Your task to perform on an android device: Go to Yahoo.com Image 0: 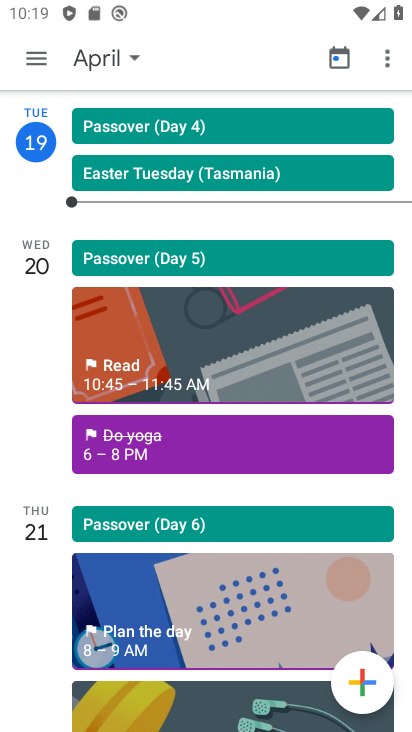
Step 0: press home button
Your task to perform on an android device: Go to Yahoo.com Image 1: 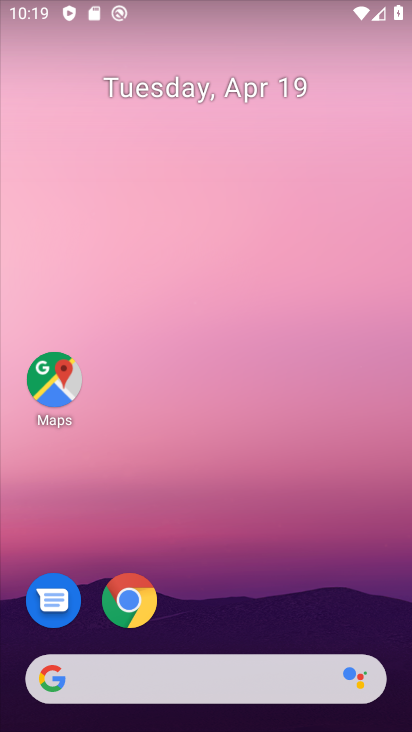
Step 1: click (144, 593)
Your task to perform on an android device: Go to Yahoo.com Image 2: 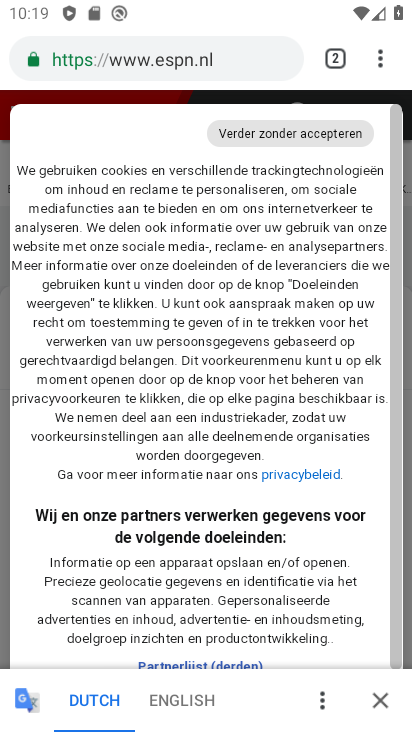
Step 2: click (141, 56)
Your task to perform on an android device: Go to Yahoo.com Image 3: 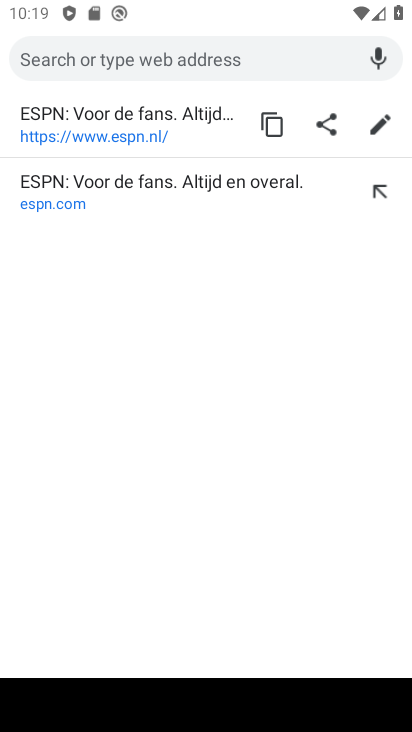
Step 3: type "yahoo.com"
Your task to perform on an android device: Go to Yahoo.com Image 4: 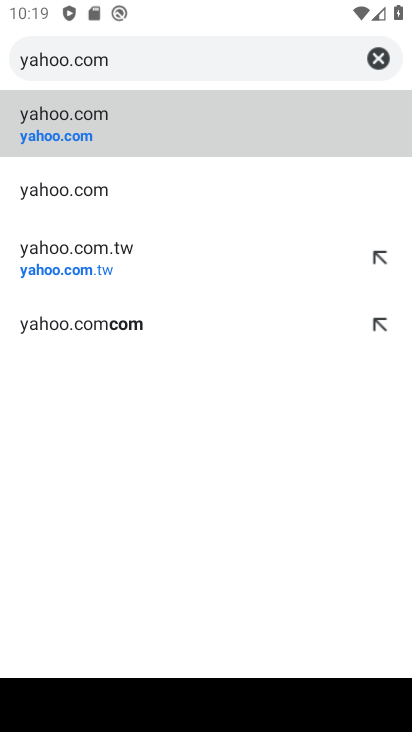
Step 4: click (127, 126)
Your task to perform on an android device: Go to Yahoo.com Image 5: 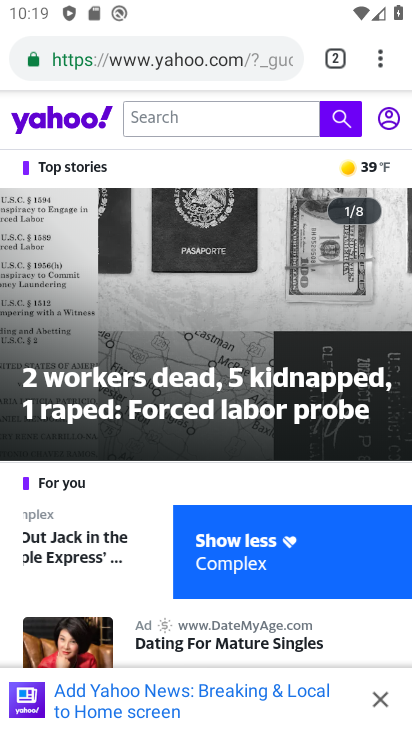
Step 5: task complete